Your task to perform on an android device: Open the phone app and click the voicemail tab. Image 0: 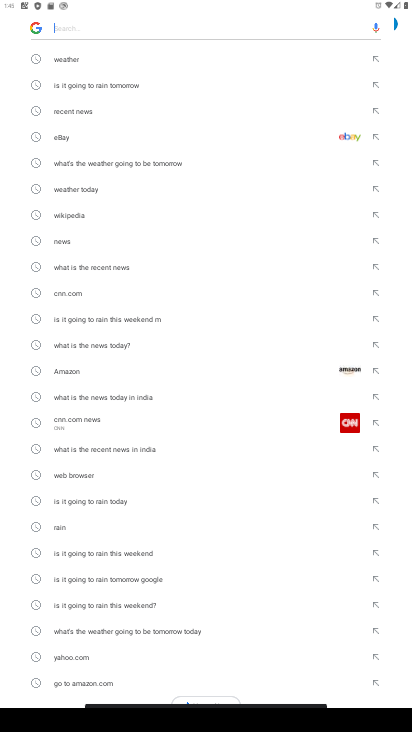
Step 0: press back button
Your task to perform on an android device: Open the phone app and click the voicemail tab. Image 1: 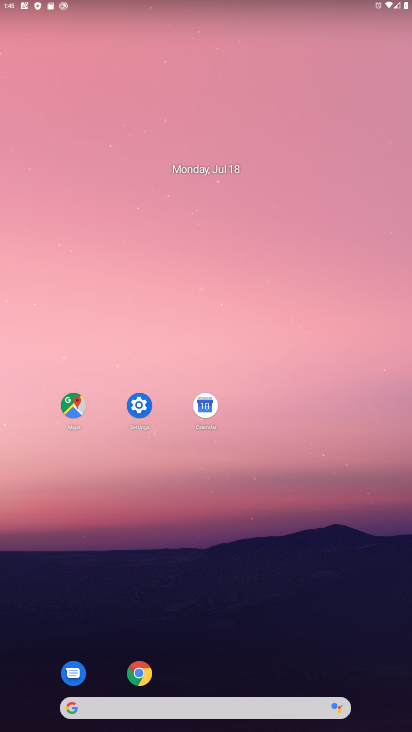
Step 1: drag from (396, 714) to (281, 138)
Your task to perform on an android device: Open the phone app and click the voicemail tab. Image 2: 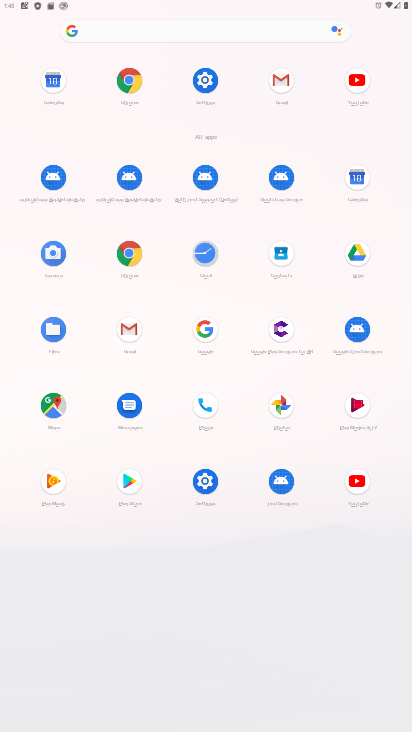
Step 2: click (201, 408)
Your task to perform on an android device: Open the phone app and click the voicemail tab. Image 3: 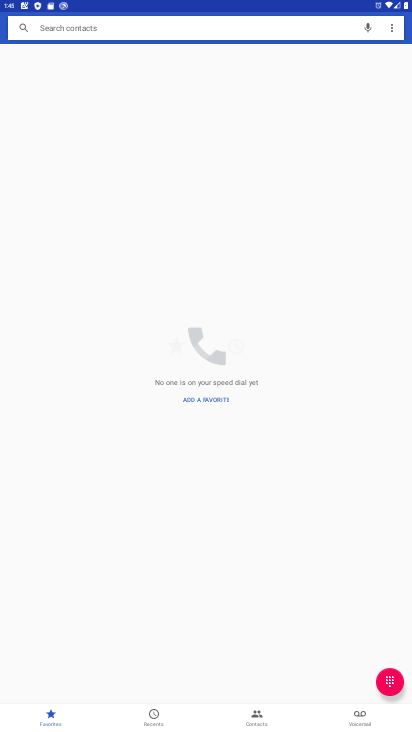
Step 3: click (346, 720)
Your task to perform on an android device: Open the phone app and click the voicemail tab. Image 4: 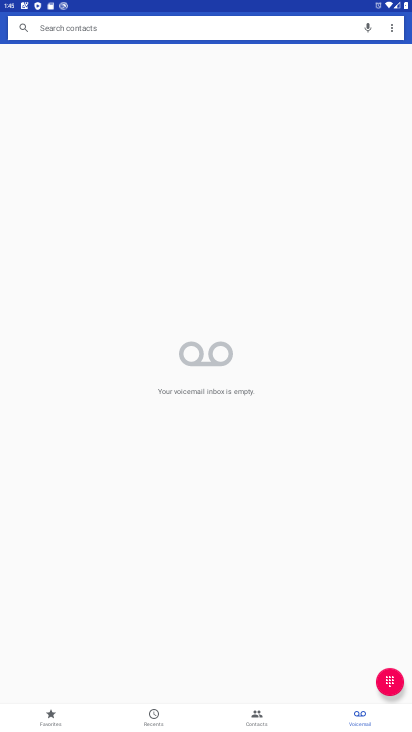
Step 4: task complete